Your task to perform on an android device: Open Google Image 0: 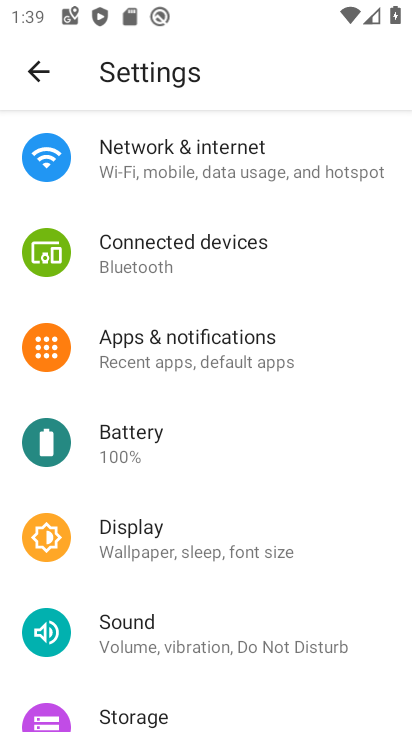
Step 0: press home button
Your task to perform on an android device: Open Google Image 1: 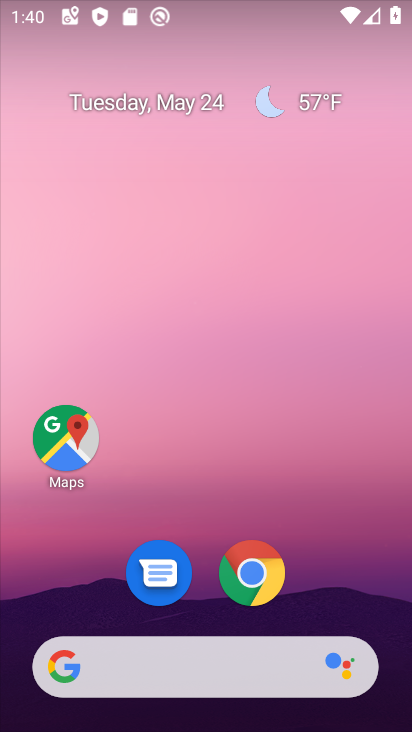
Step 1: drag from (355, 554) to (336, 59)
Your task to perform on an android device: Open Google Image 2: 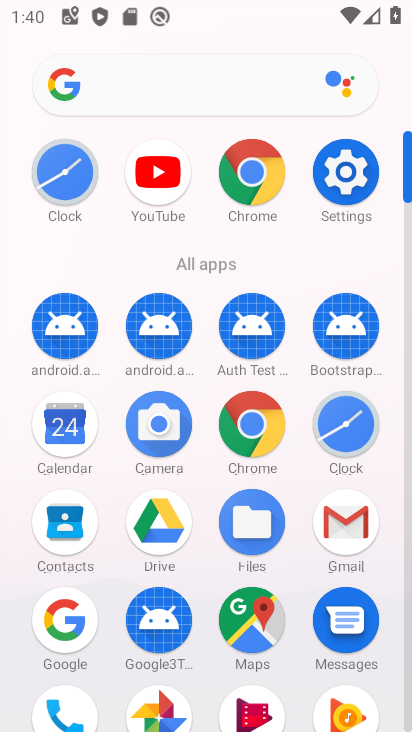
Step 2: click (50, 622)
Your task to perform on an android device: Open Google Image 3: 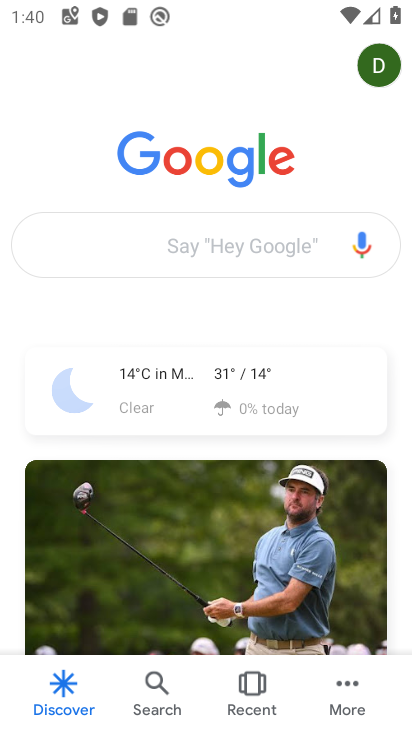
Step 3: task complete